Your task to perform on an android device: Go to Android settings Image 0: 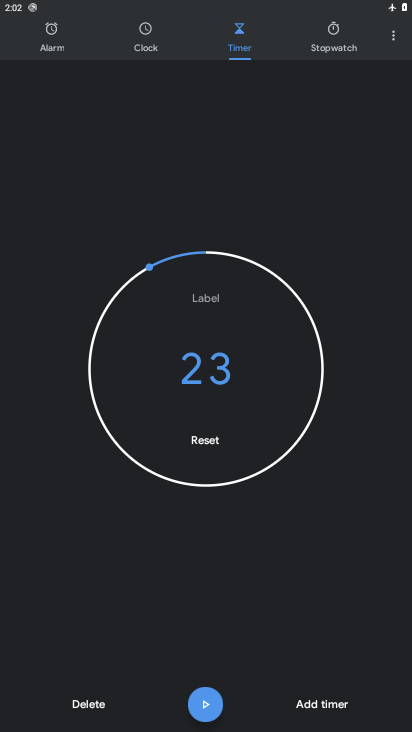
Step 0: click (36, 695)
Your task to perform on an android device: Go to Android settings Image 1: 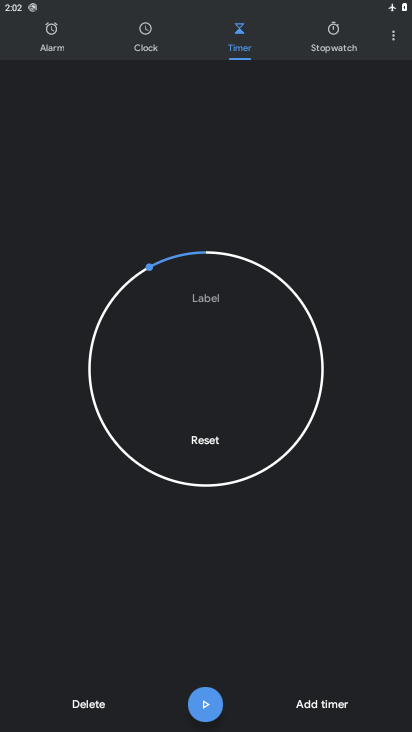
Step 1: press home button
Your task to perform on an android device: Go to Android settings Image 2: 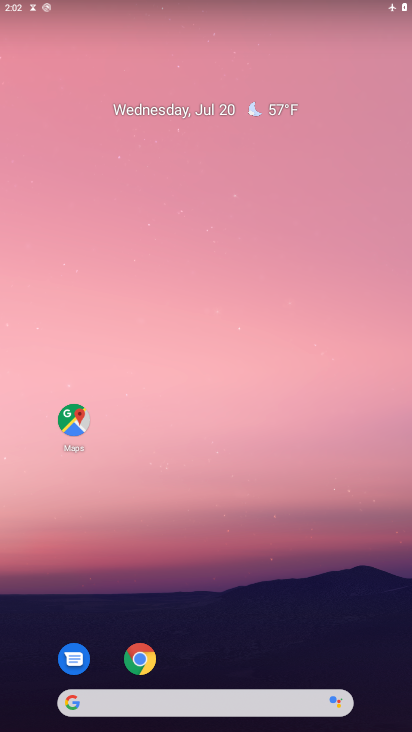
Step 2: drag from (45, 681) to (327, 71)
Your task to perform on an android device: Go to Android settings Image 3: 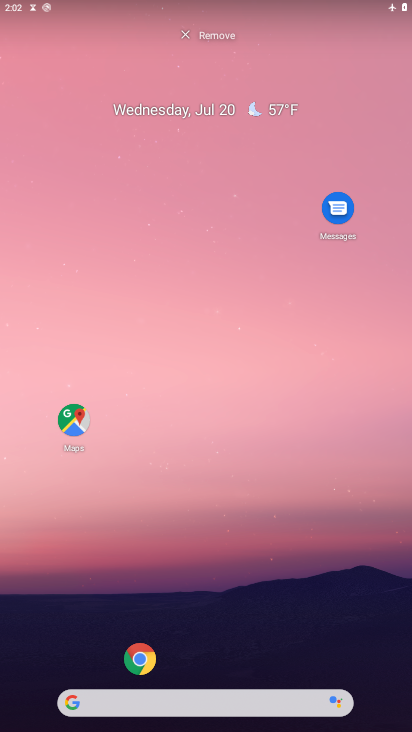
Step 3: drag from (38, 692) to (170, 290)
Your task to perform on an android device: Go to Android settings Image 4: 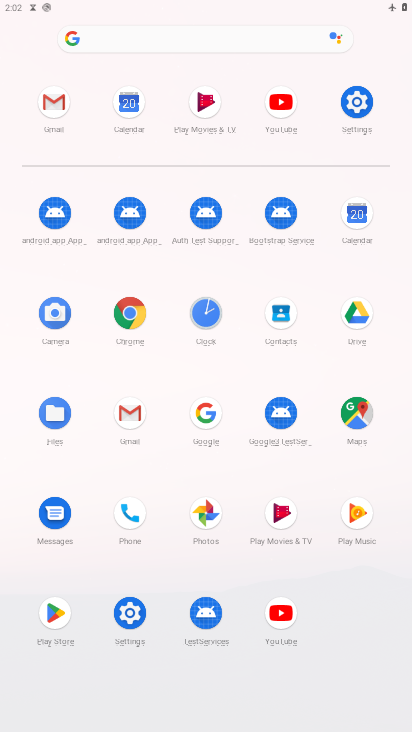
Step 4: drag from (7, 709) to (190, 253)
Your task to perform on an android device: Go to Android settings Image 5: 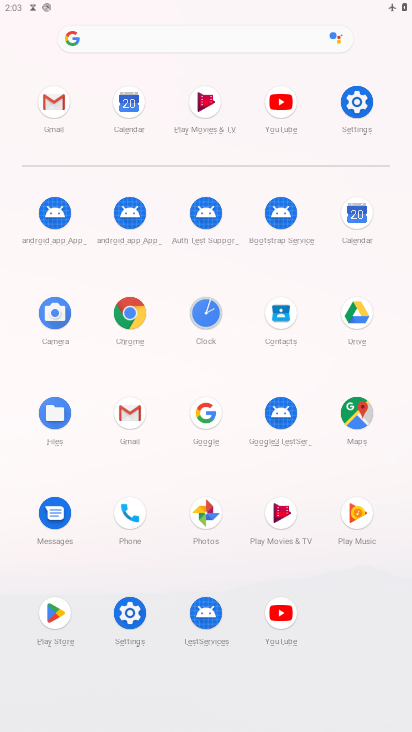
Step 5: click (139, 608)
Your task to perform on an android device: Go to Android settings Image 6: 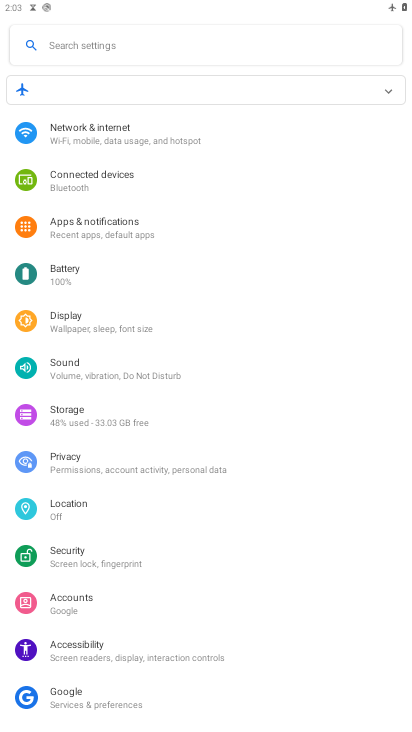
Step 6: drag from (278, 685) to (295, 352)
Your task to perform on an android device: Go to Android settings Image 7: 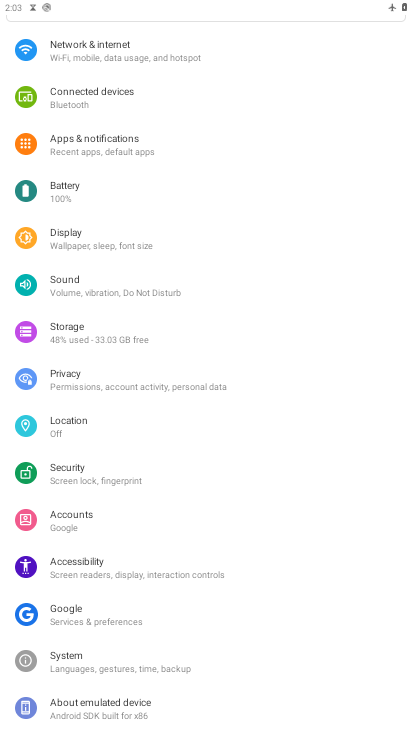
Step 7: drag from (257, 689) to (314, 316)
Your task to perform on an android device: Go to Android settings Image 8: 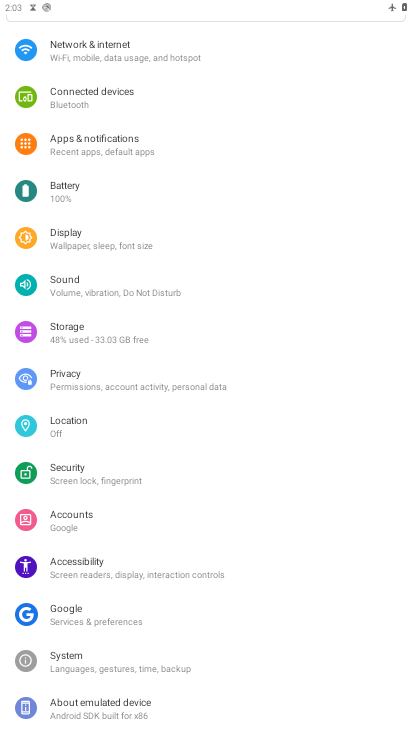
Step 8: click (97, 704)
Your task to perform on an android device: Go to Android settings Image 9: 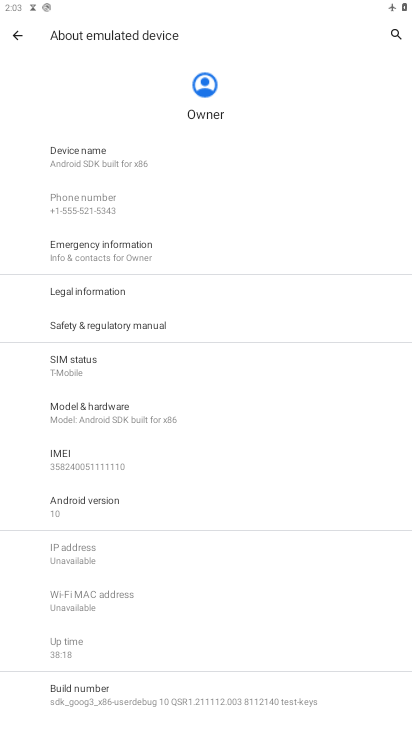
Step 9: click (94, 499)
Your task to perform on an android device: Go to Android settings Image 10: 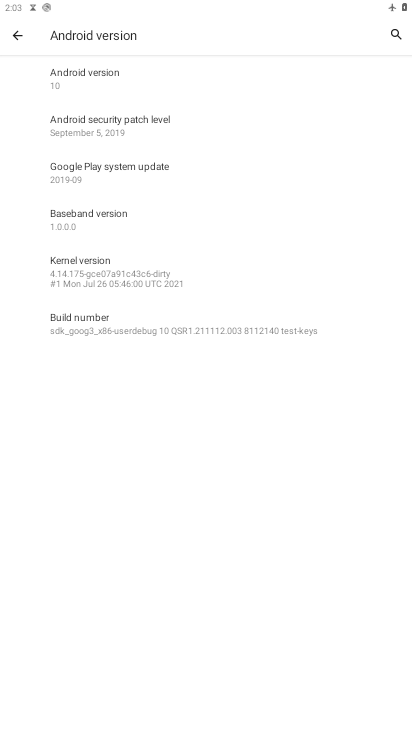
Step 10: task complete